Your task to perform on an android device: Open location settings Image 0: 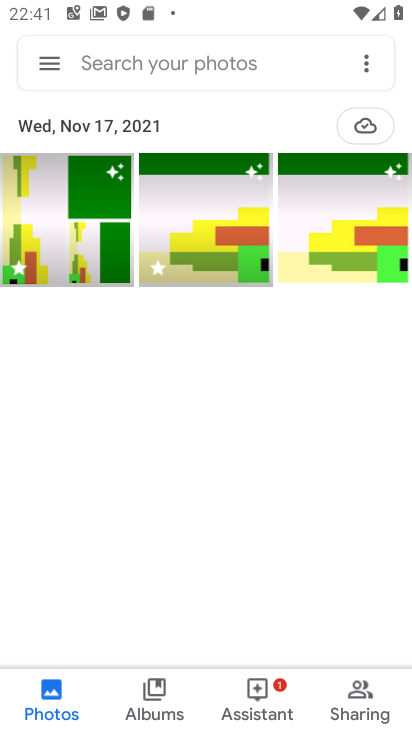
Step 0: press home button
Your task to perform on an android device: Open location settings Image 1: 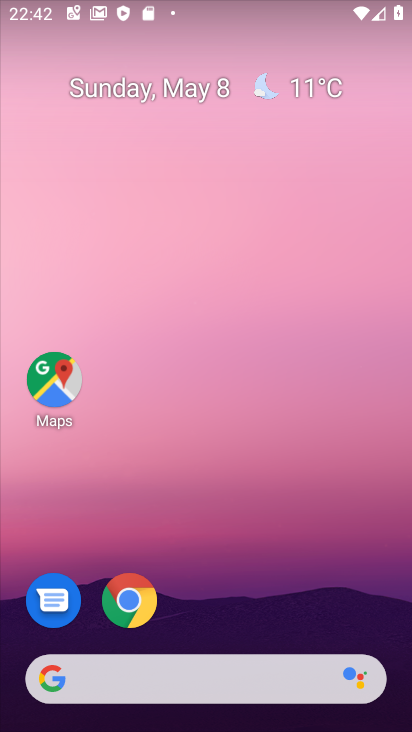
Step 1: click (52, 389)
Your task to perform on an android device: Open location settings Image 2: 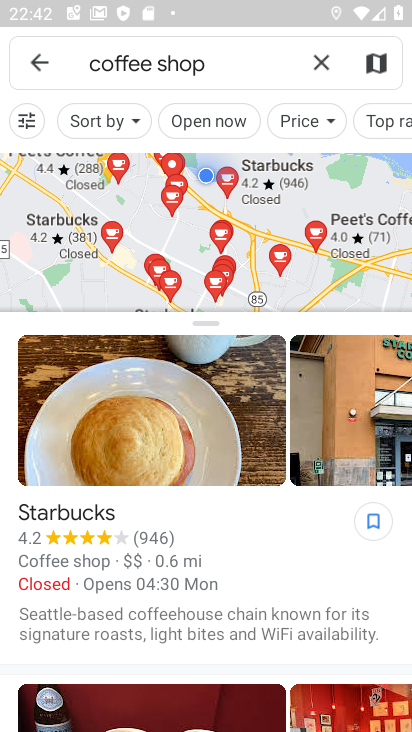
Step 2: click (48, 53)
Your task to perform on an android device: Open location settings Image 3: 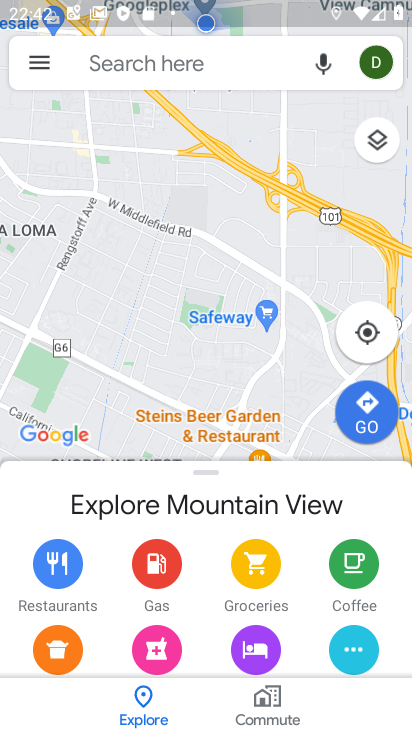
Step 3: click (49, 75)
Your task to perform on an android device: Open location settings Image 4: 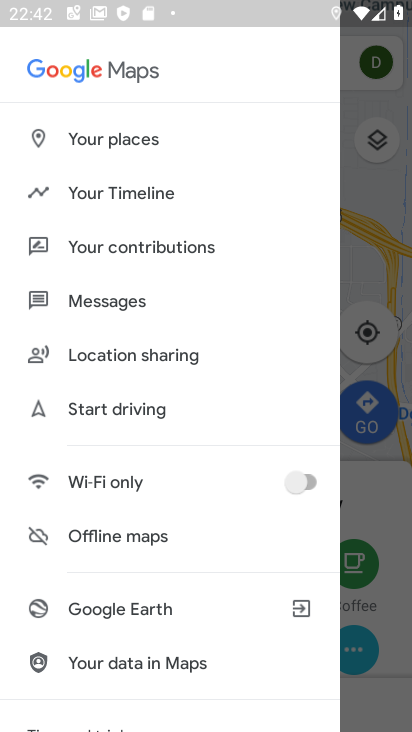
Step 4: drag from (120, 580) to (215, 16)
Your task to perform on an android device: Open location settings Image 5: 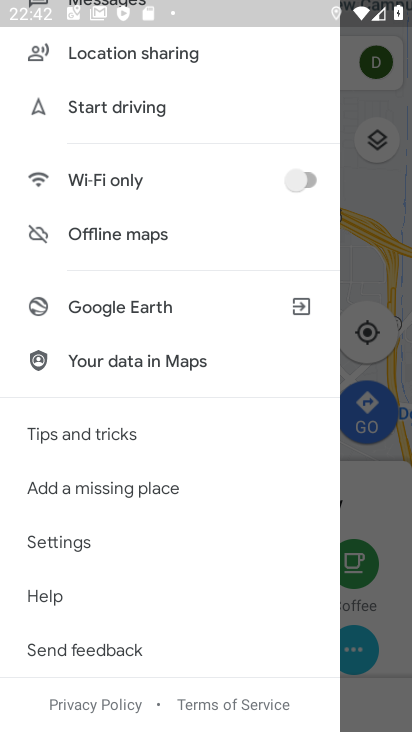
Step 5: click (78, 544)
Your task to perform on an android device: Open location settings Image 6: 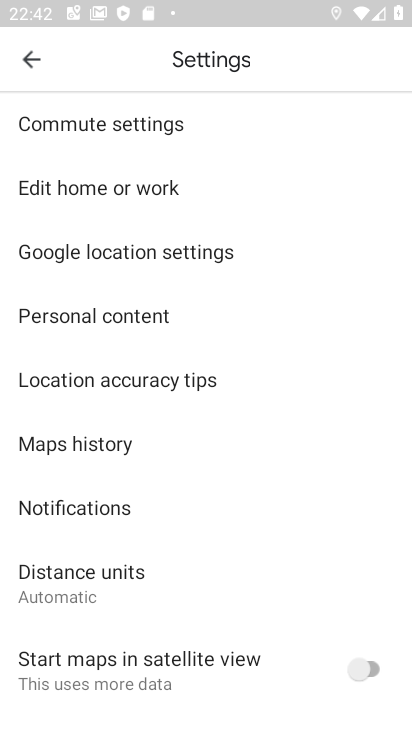
Step 6: task complete